Your task to perform on an android device: change the clock style Image 0: 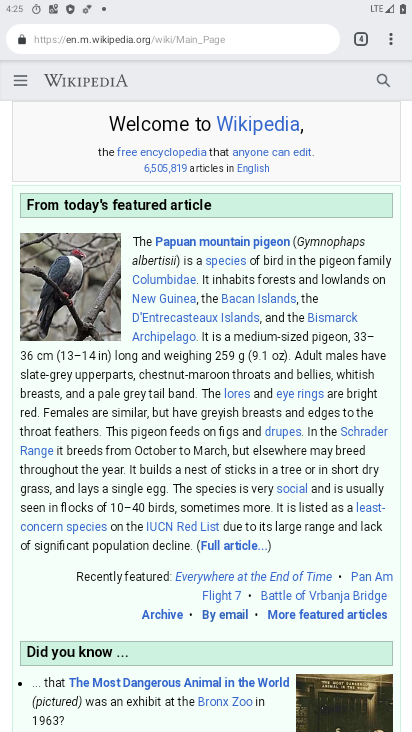
Step 0: press home button
Your task to perform on an android device: change the clock style Image 1: 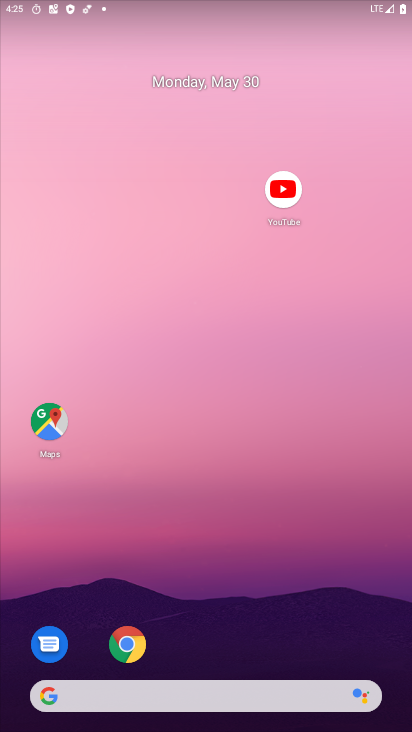
Step 1: drag from (203, 656) to (225, 203)
Your task to perform on an android device: change the clock style Image 2: 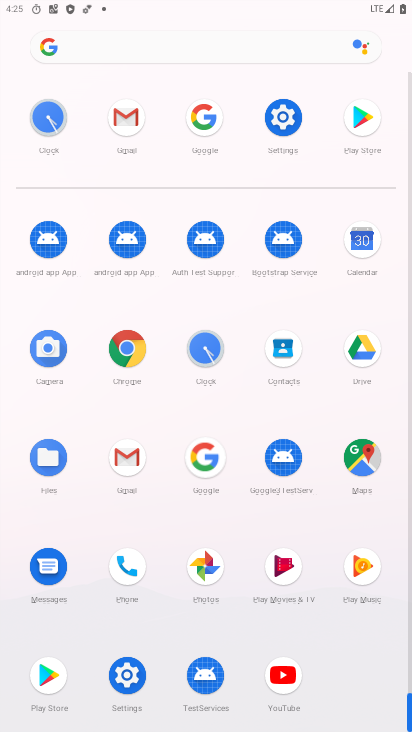
Step 2: click (207, 341)
Your task to perform on an android device: change the clock style Image 3: 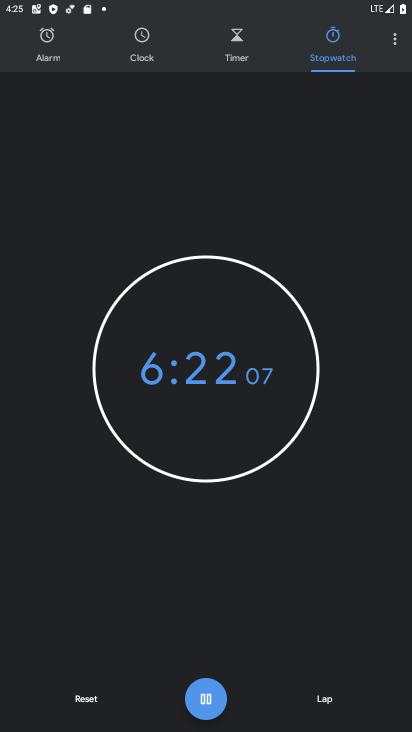
Step 3: click (391, 42)
Your task to perform on an android device: change the clock style Image 4: 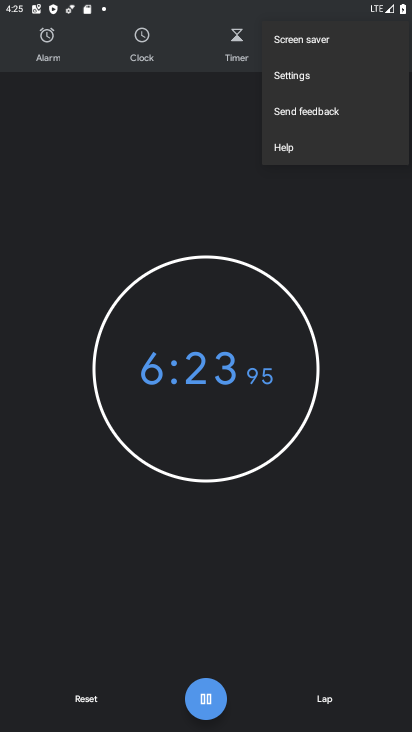
Step 4: click (314, 87)
Your task to perform on an android device: change the clock style Image 5: 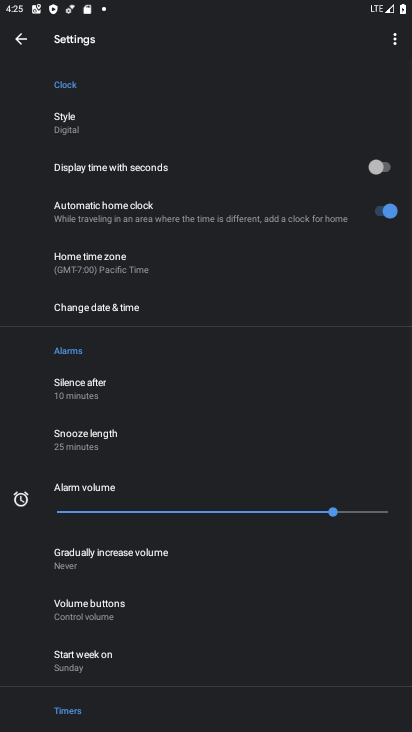
Step 5: click (106, 141)
Your task to perform on an android device: change the clock style Image 6: 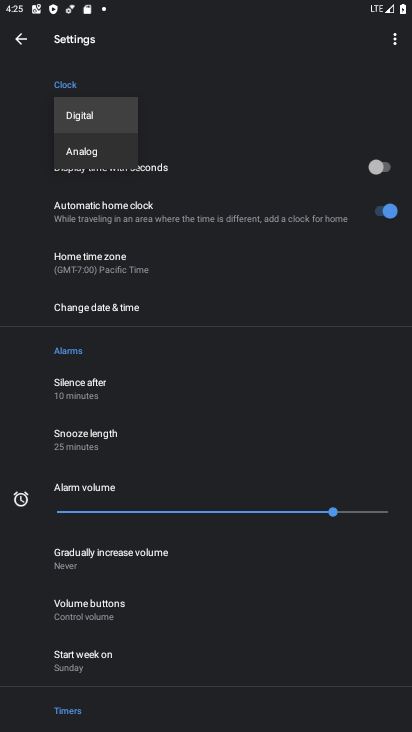
Step 6: click (93, 156)
Your task to perform on an android device: change the clock style Image 7: 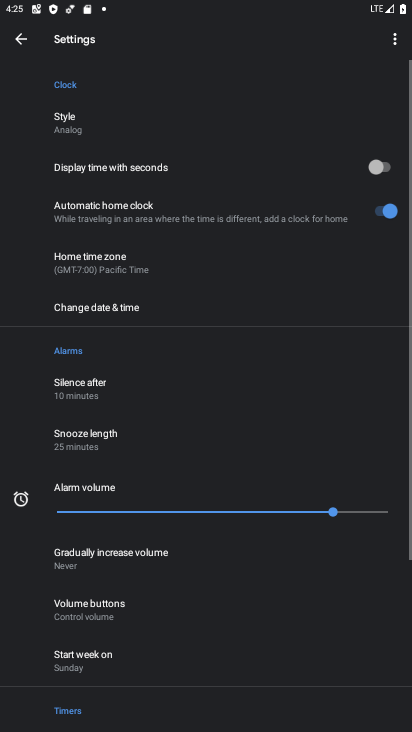
Step 7: task complete